Your task to perform on an android device: empty trash in google photos Image 0: 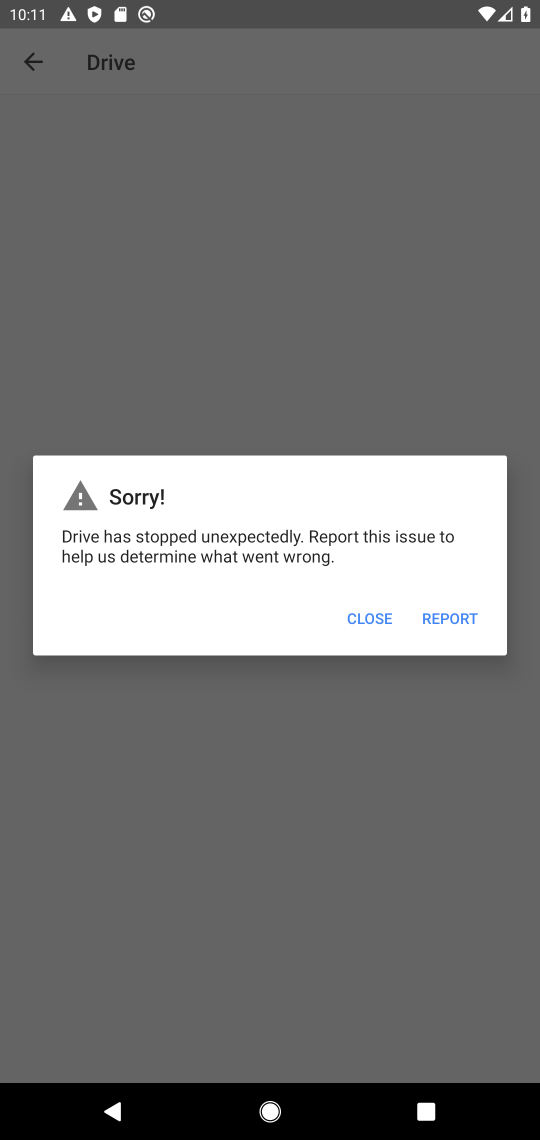
Step 0: press home button
Your task to perform on an android device: empty trash in google photos Image 1: 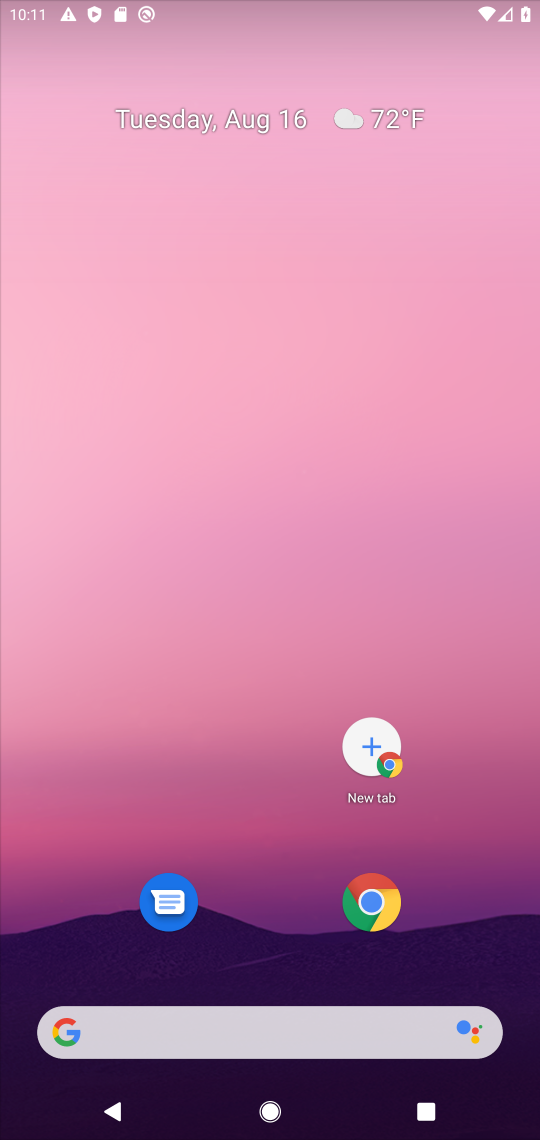
Step 1: drag from (258, 1000) to (228, 401)
Your task to perform on an android device: empty trash in google photos Image 2: 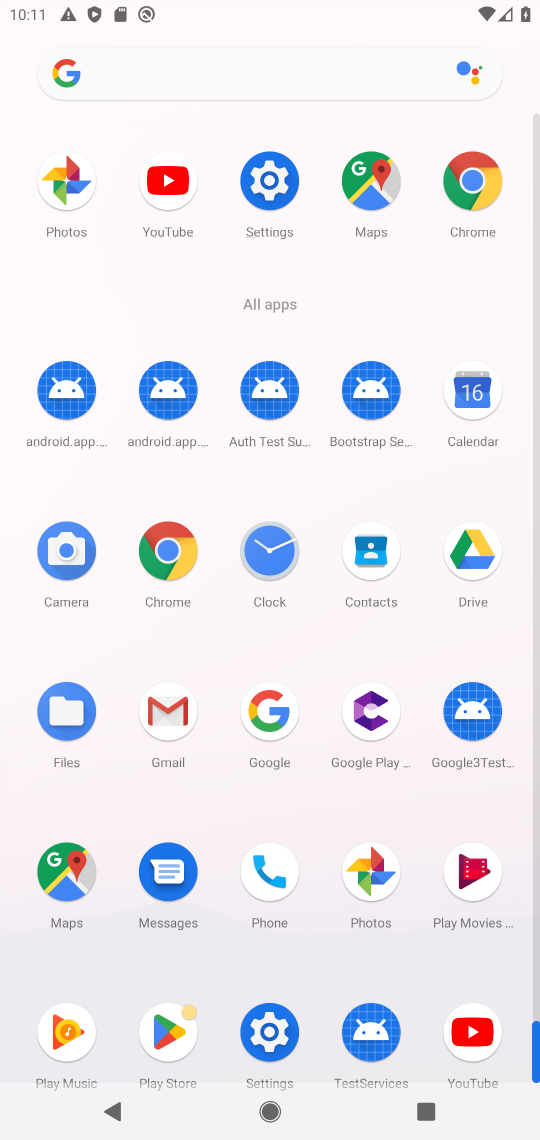
Step 2: click (361, 886)
Your task to perform on an android device: empty trash in google photos Image 3: 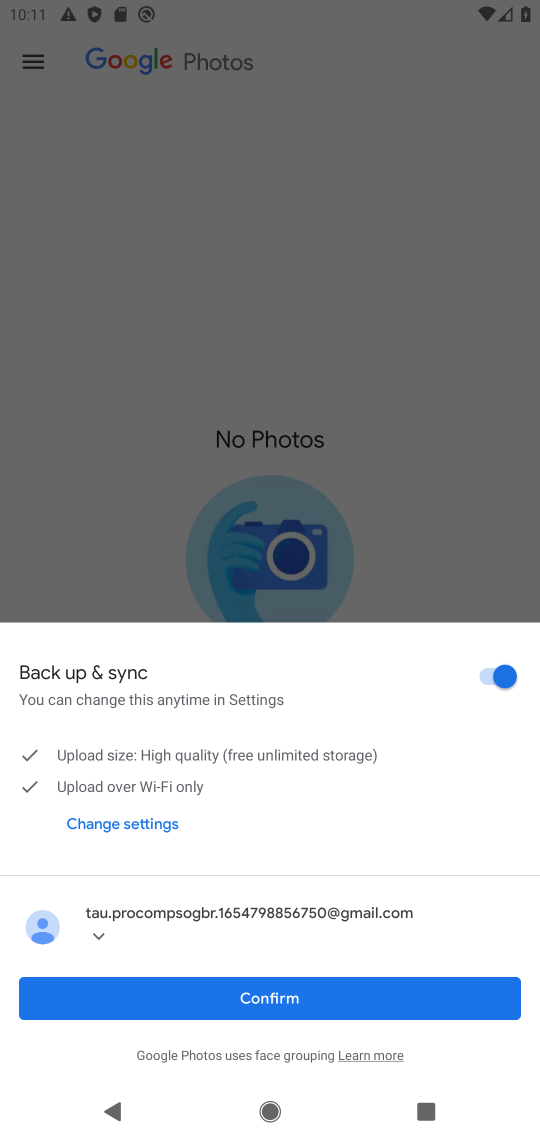
Step 3: click (212, 1005)
Your task to perform on an android device: empty trash in google photos Image 4: 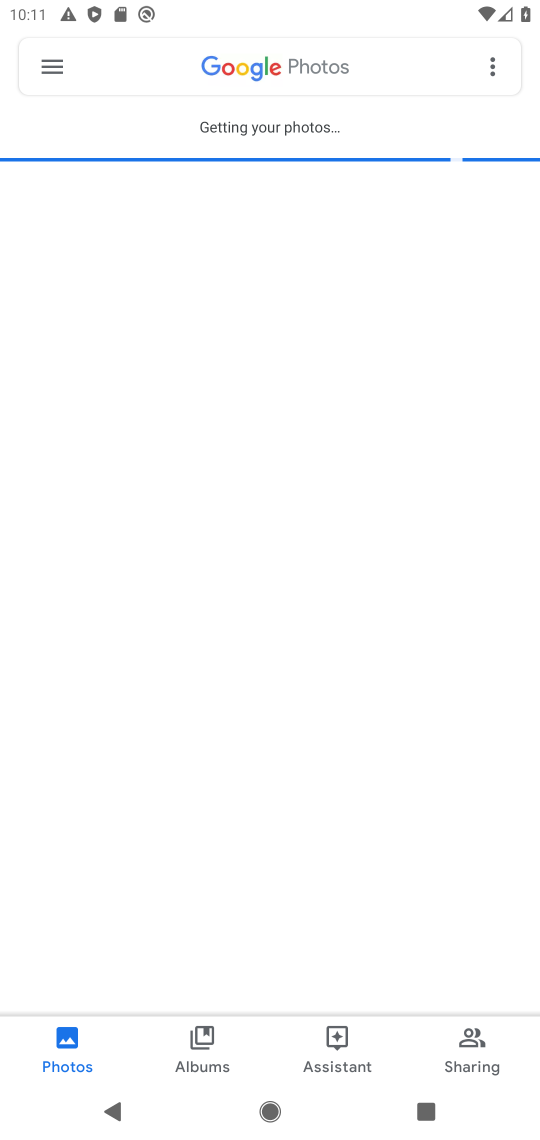
Step 4: click (60, 60)
Your task to perform on an android device: empty trash in google photos Image 5: 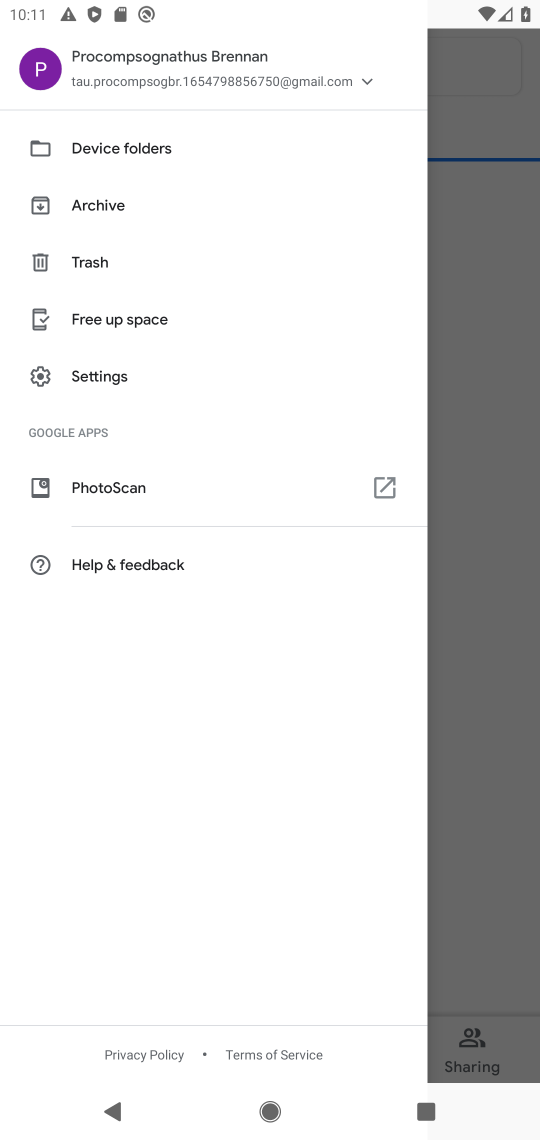
Step 5: click (79, 258)
Your task to perform on an android device: empty trash in google photos Image 6: 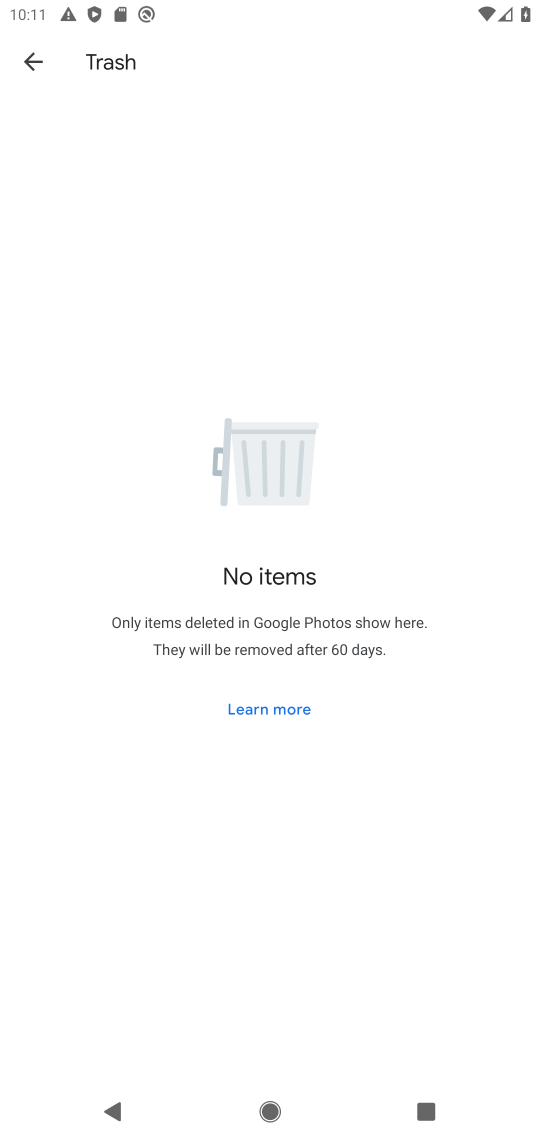
Step 6: press home button
Your task to perform on an android device: empty trash in google photos Image 7: 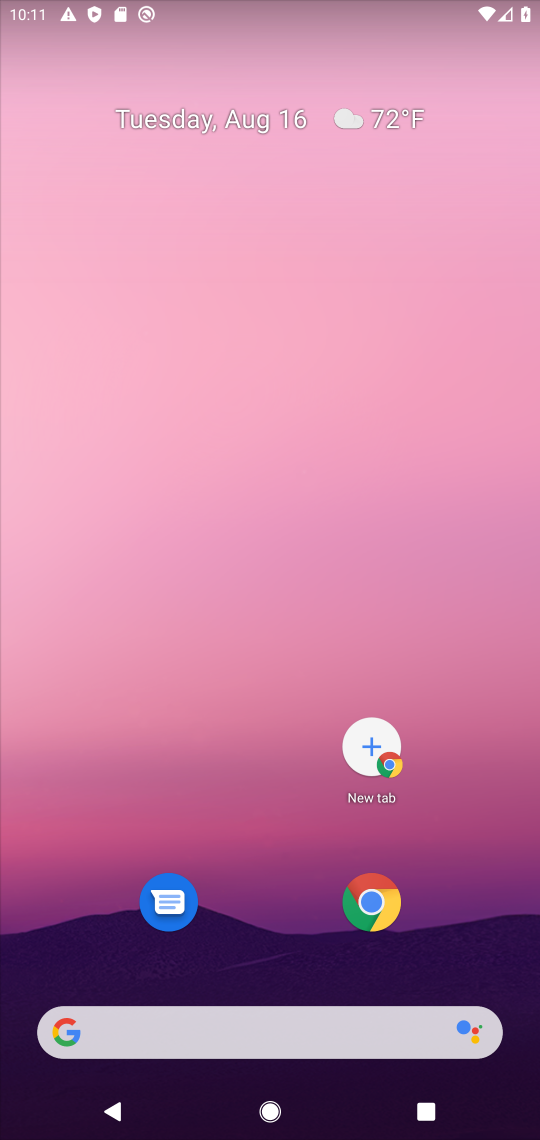
Step 7: drag from (230, 1014) to (256, 542)
Your task to perform on an android device: empty trash in google photos Image 8: 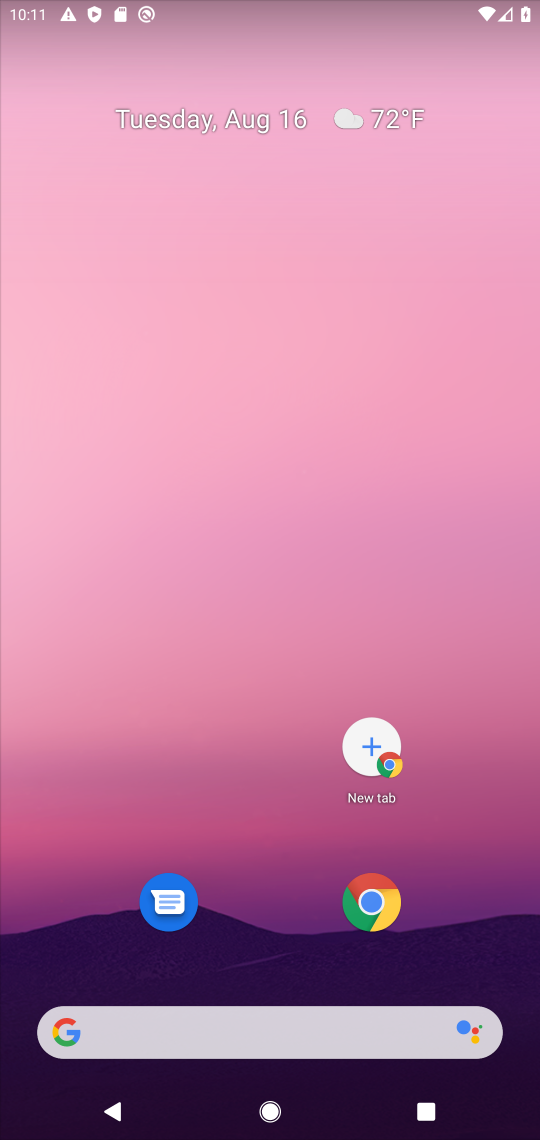
Step 8: drag from (256, 959) to (223, 341)
Your task to perform on an android device: empty trash in google photos Image 9: 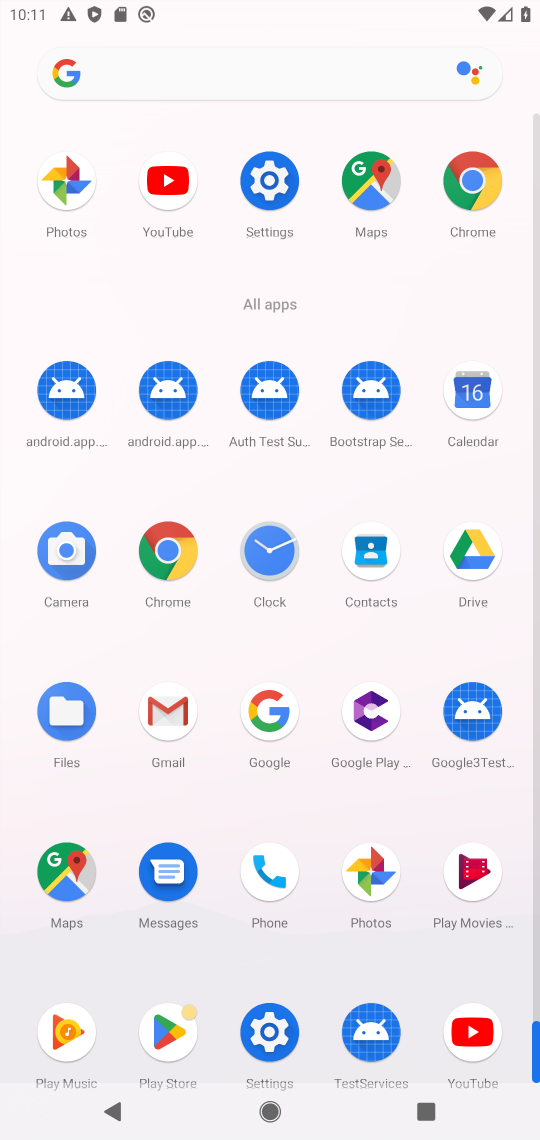
Step 9: click (79, 197)
Your task to perform on an android device: empty trash in google photos Image 10: 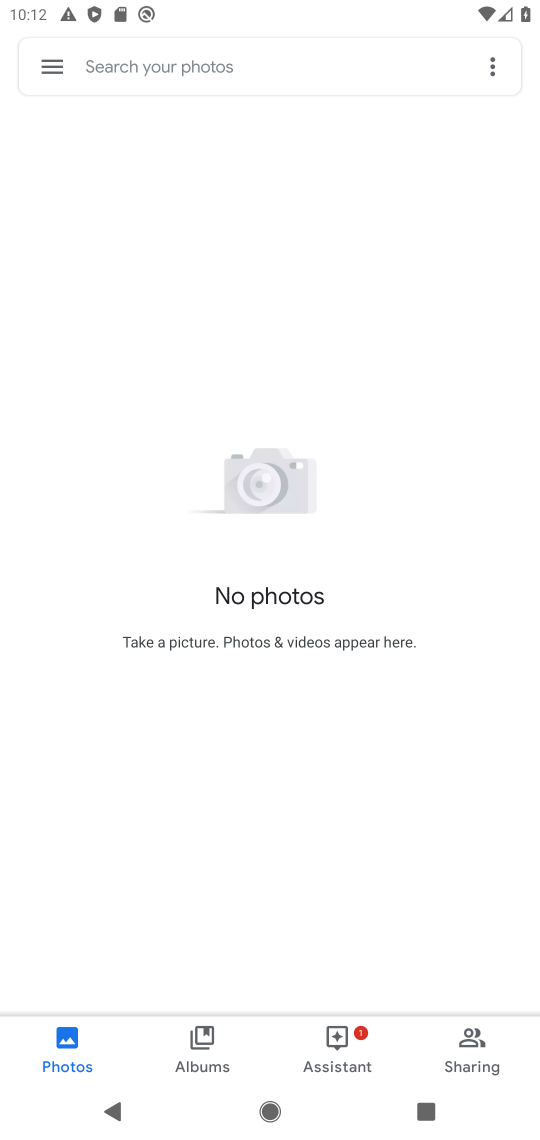
Step 10: press home button
Your task to perform on an android device: empty trash in google photos Image 11: 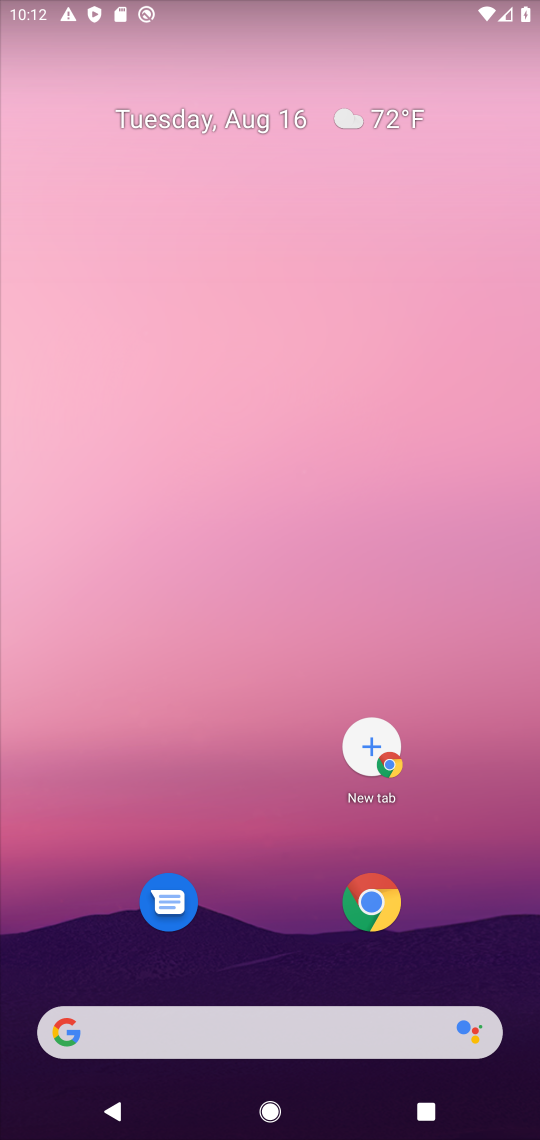
Step 11: drag from (256, 968) to (259, 493)
Your task to perform on an android device: empty trash in google photos Image 12: 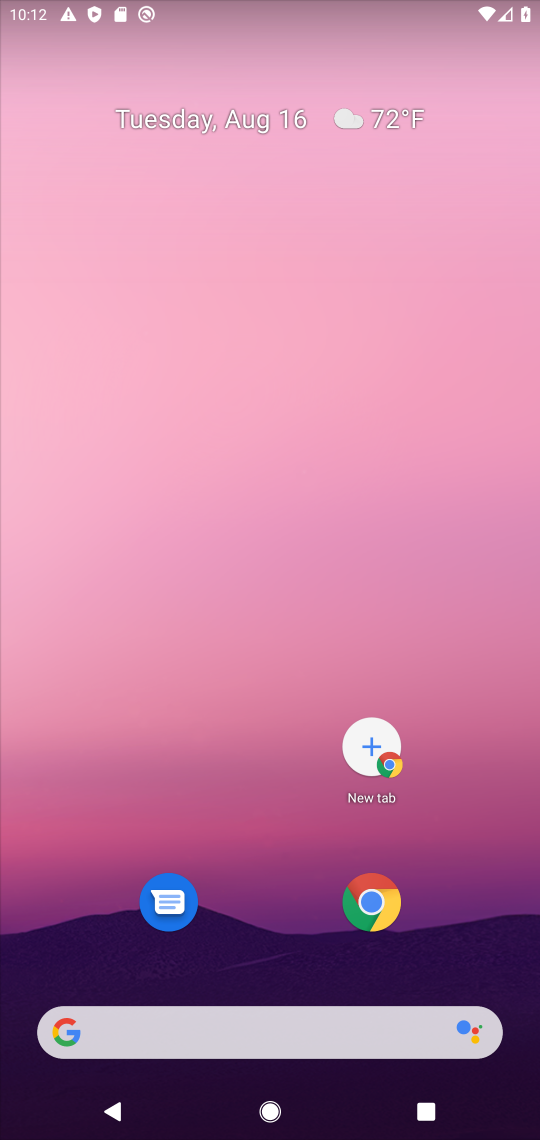
Step 12: drag from (268, 965) to (295, 173)
Your task to perform on an android device: empty trash in google photos Image 13: 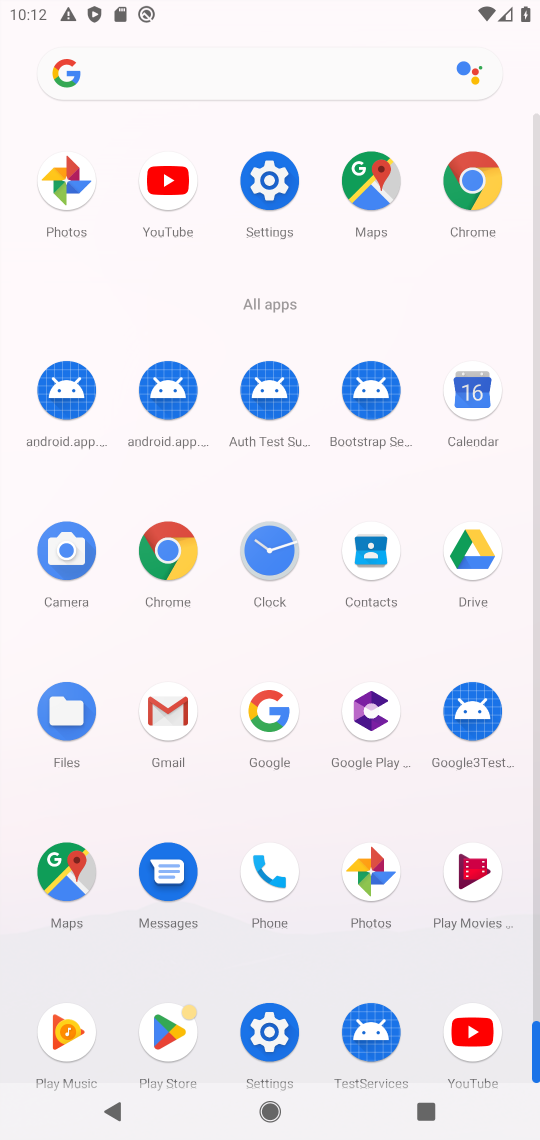
Step 13: click (381, 900)
Your task to perform on an android device: empty trash in google photos Image 14: 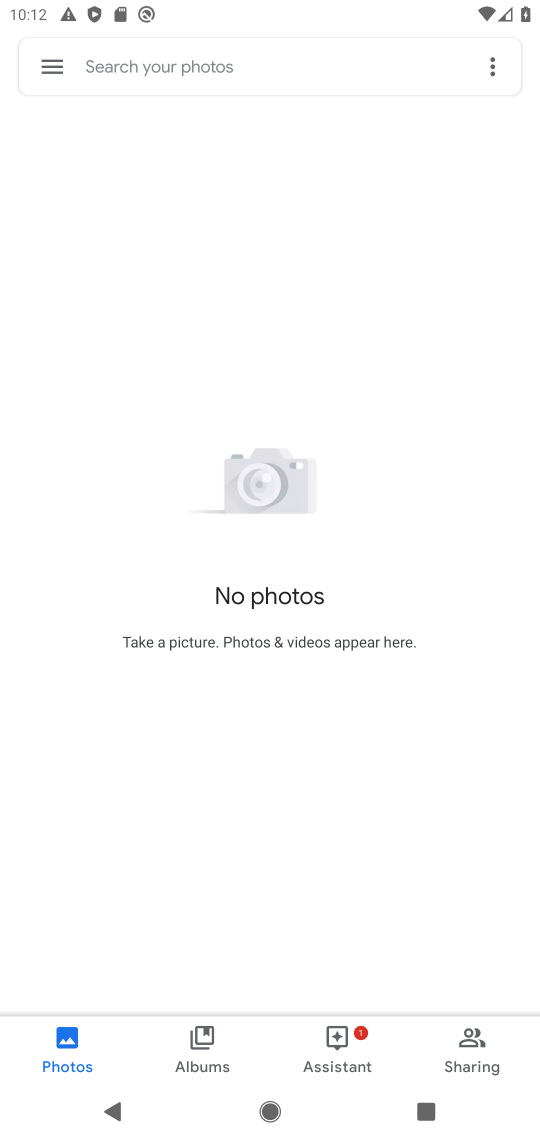
Step 14: click (91, 79)
Your task to perform on an android device: empty trash in google photos Image 15: 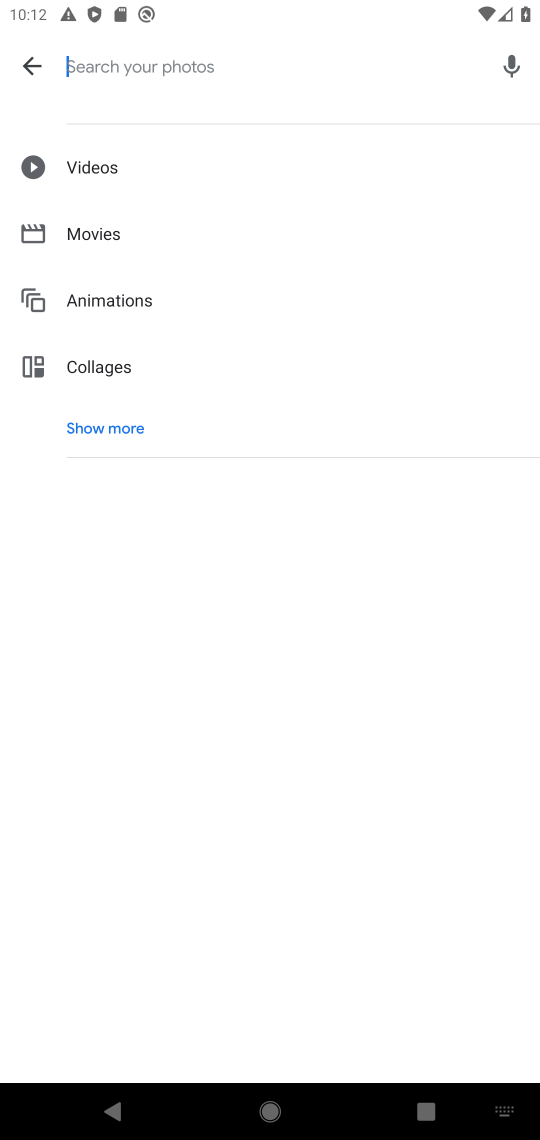
Step 15: click (27, 62)
Your task to perform on an android device: empty trash in google photos Image 16: 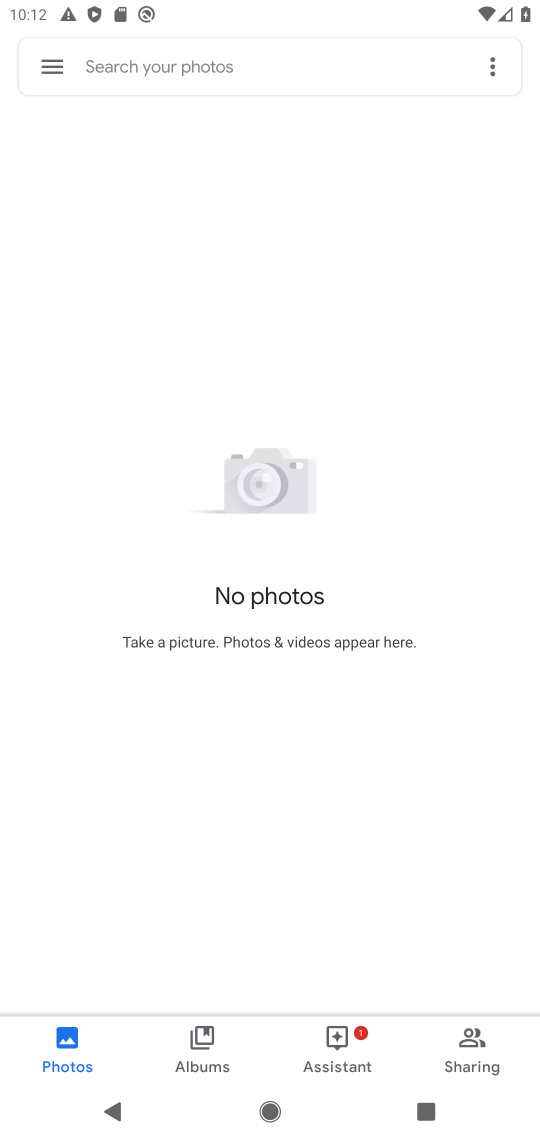
Step 16: click (58, 78)
Your task to perform on an android device: empty trash in google photos Image 17: 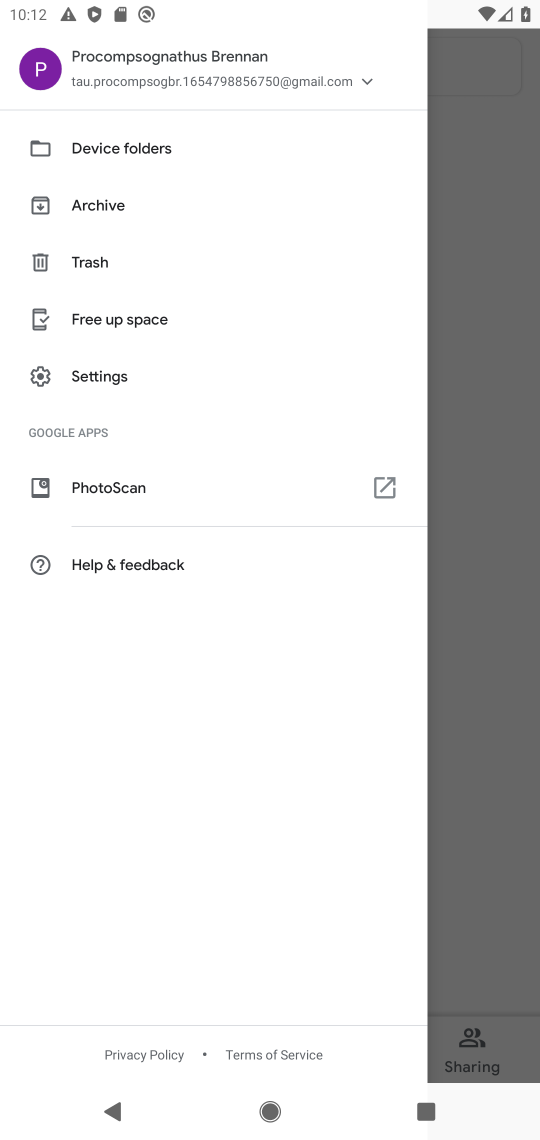
Step 17: click (78, 260)
Your task to perform on an android device: empty trash in google photos Image 18: 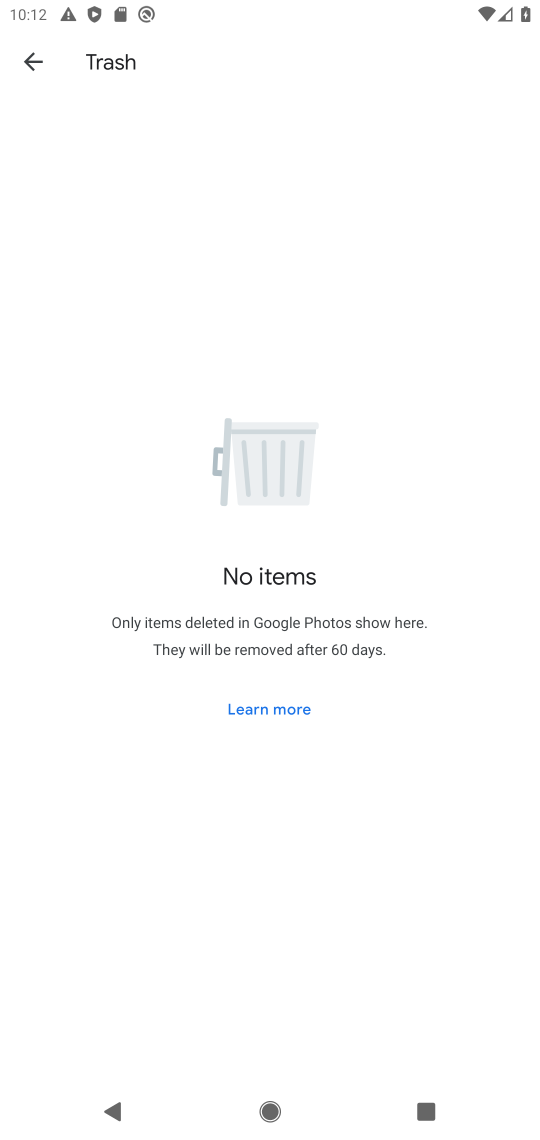
Step 18: task complete